Your task to perform on an android device: turn on airplane mode Image 0: 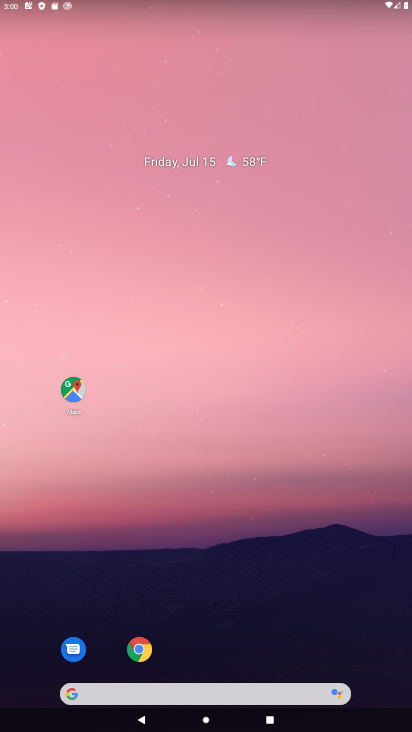
Step 0: drag from (233, 648) to (247, 139)
Your task to perform on an android device: turn on airplane mode Image 1: 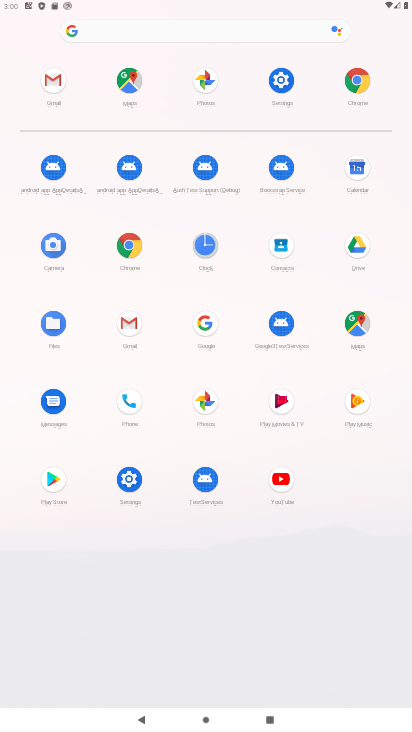
Step 1: click (278, 81)
Your task to perform on an android device: turn on airplane mode Image 2: 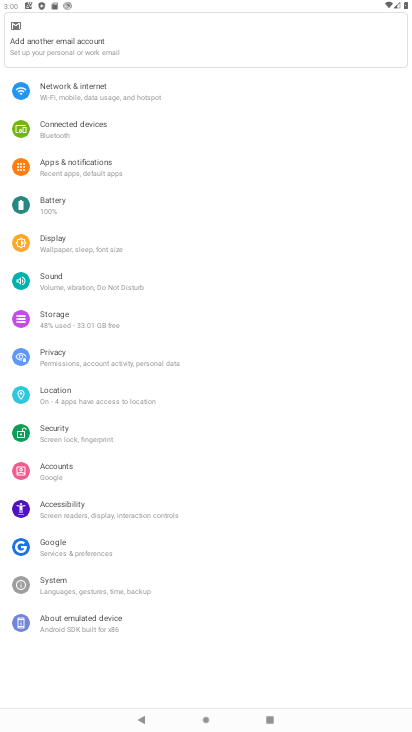
Step 2: click (83, 95)
Your task to perform on an android device: turn on airplane mode Image 3: 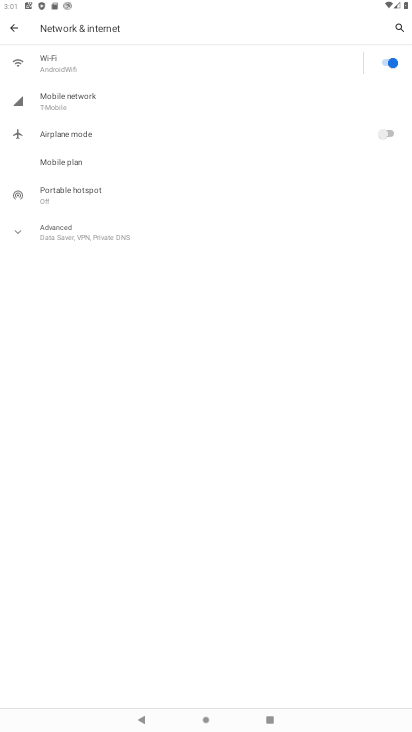
Step 3: click (392, 130)
Your task to perform on an android device: turn on airplane mode Image 4: 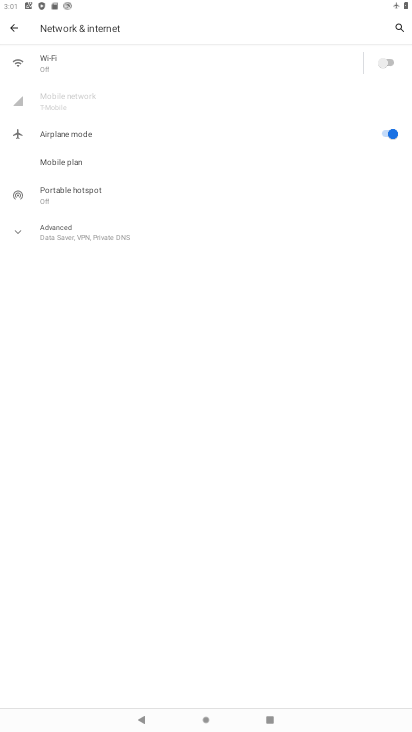
Step 4: task complete